Your task to perform on an android device: Open Android settings Image 0: 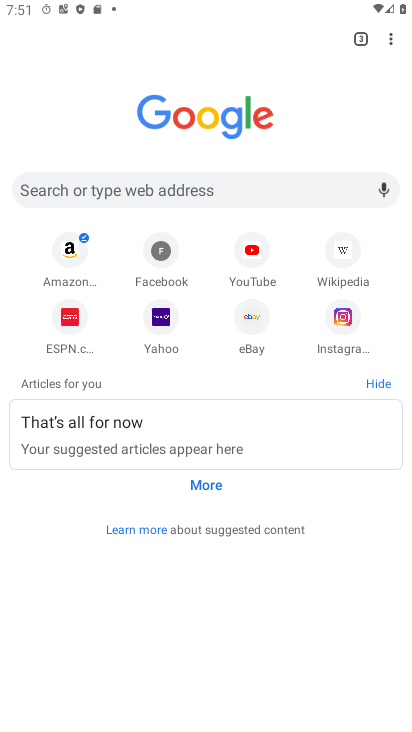
Step 0: press home button
Your task to perform on an android device: Open Android settings Image 1: 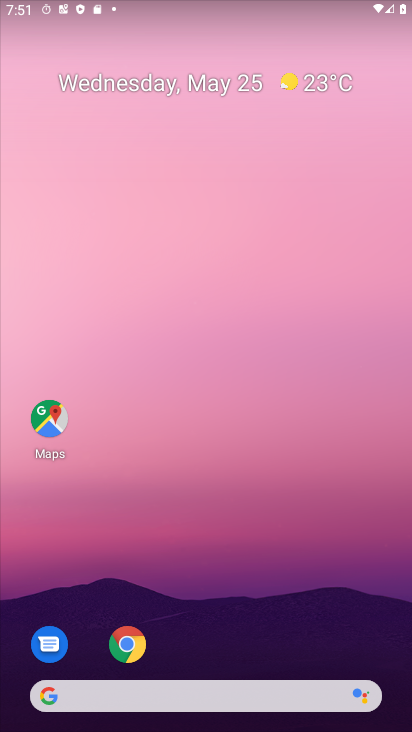
Step 1: drag from (247, 706) to (247, 143)
Your task to perform on an android device: Open Android settings Image 2: 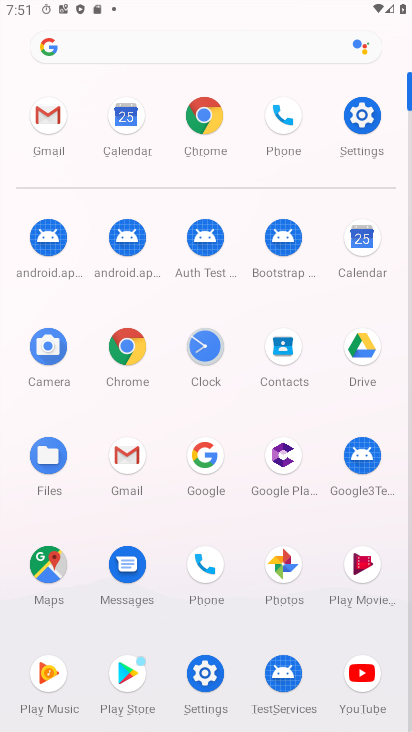
Step 2: click (353, 134)
Your task to perform on an android device: Open Android settings Image 3: 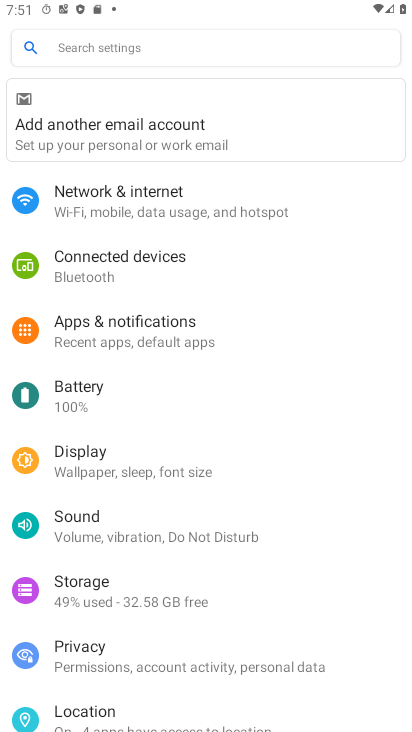
Step 3: click (141, 51)
Your task to perform on an android device: Open Android settings Image 4: 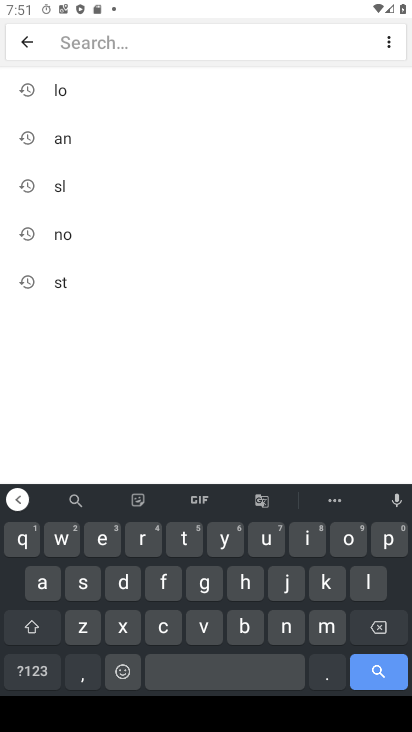
Step 4: click (66, 135)
Your task to perform on an android device: Open Android settings Image 5: 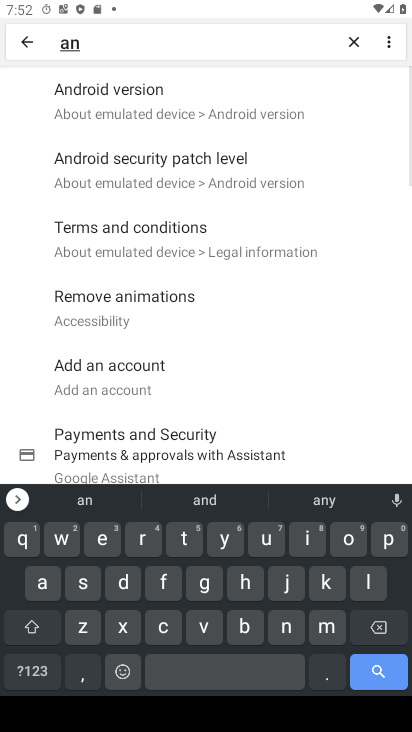
Step 5: click (143, 100)
Your task to perform on an android device: Open Android settings Image 6: 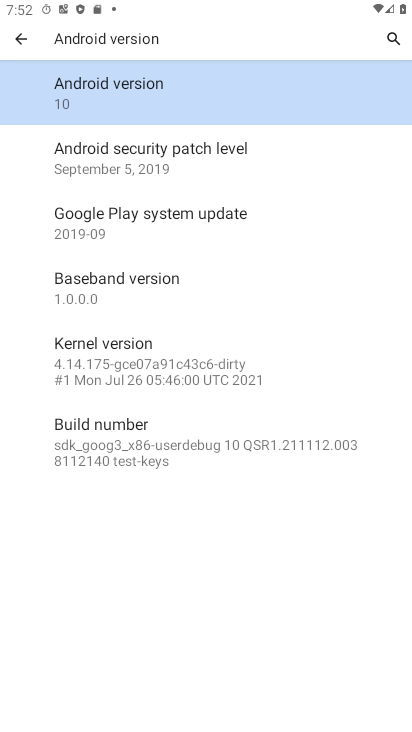
Step 6: task complete